Your task to perform on an android device: toggle wifi Image 0: 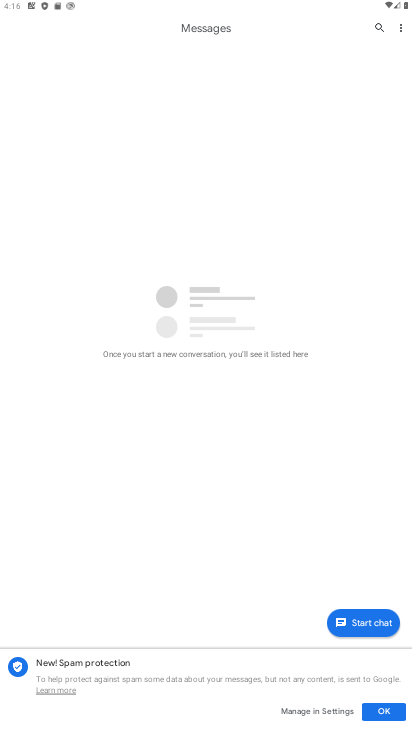
Step 0: press home button
Your task to perform on an android device: toggle wifi Image 1: 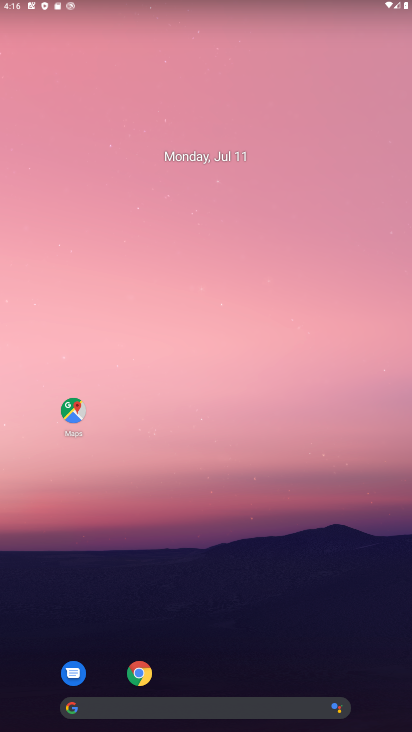
Step 1: drag from (208, 712) to (218, 103)
Your task to perform on an android device: toggle wifi Image 2: 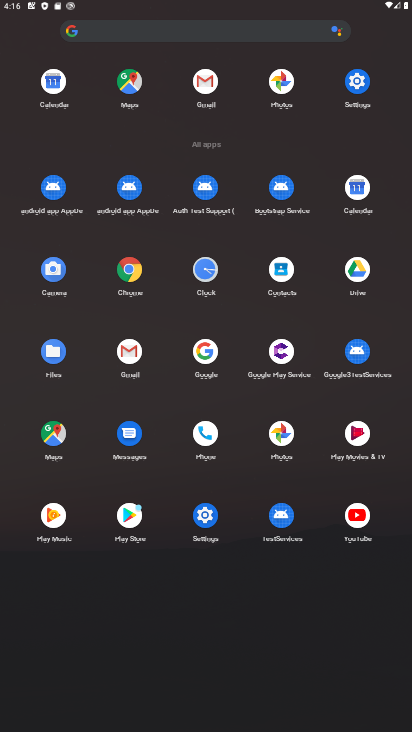
Step 2: click (206, 514)
Your task to perform on an android device: toggle wifi Image 3: 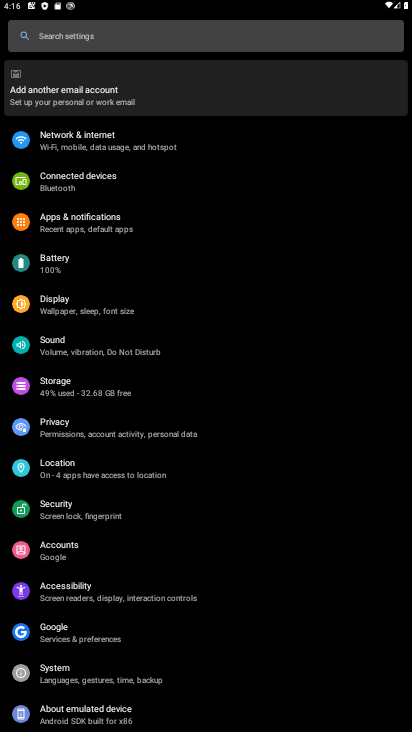
Step 3: click (139, 148)
Your task to perform on an android device: toggle wifi Image 4: 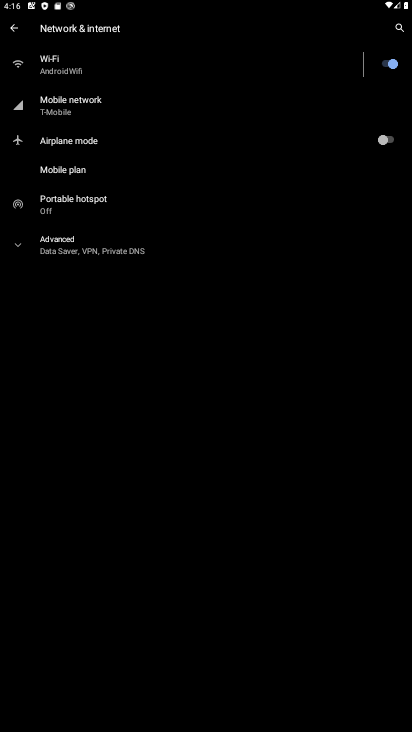
Step 4: click (76, 73)
Your task to perform on an android device: toggle wifi Image 5: 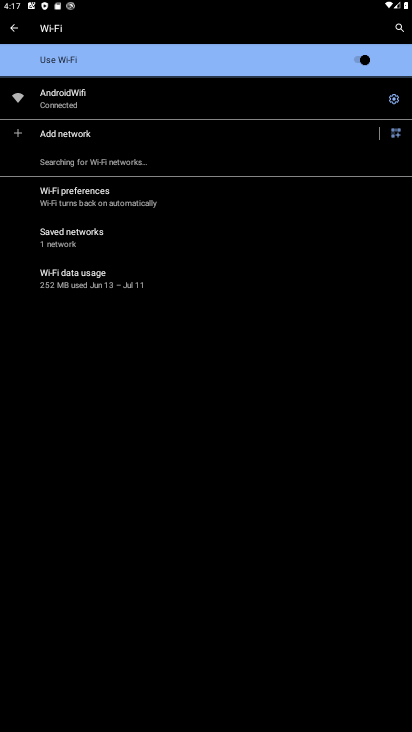
Step 5: click (362, 59)
Your task to perform on an android device: toggle wifi Image 6: 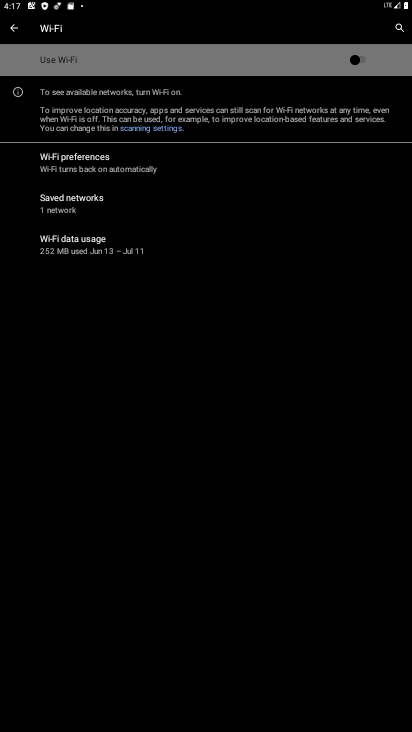
Step 6: task complete